Your task to perform on an android device: empty trash in google photos Image 0: 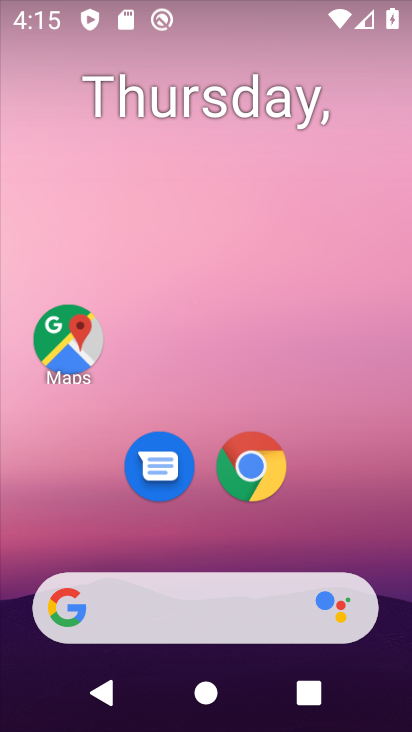
Step 0: drag from (334, 481) to (285, 102)
Your task to perform on an android device: empty trash in google photos Image 1: 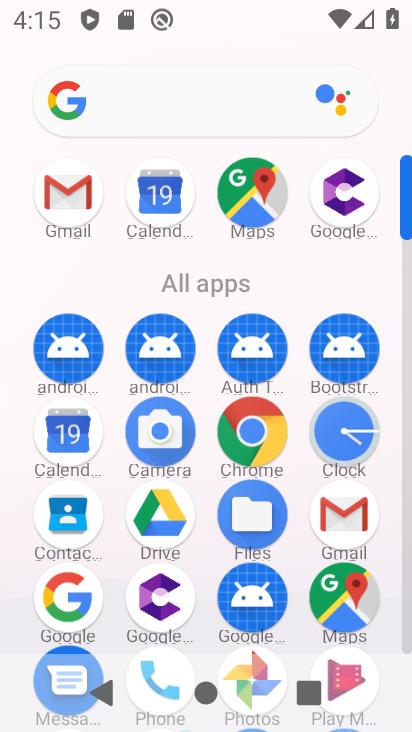
Step 1: drag from (401, 480) to (409, 202)
Your task to perform on an android device: empty trash in google photos Image 2: 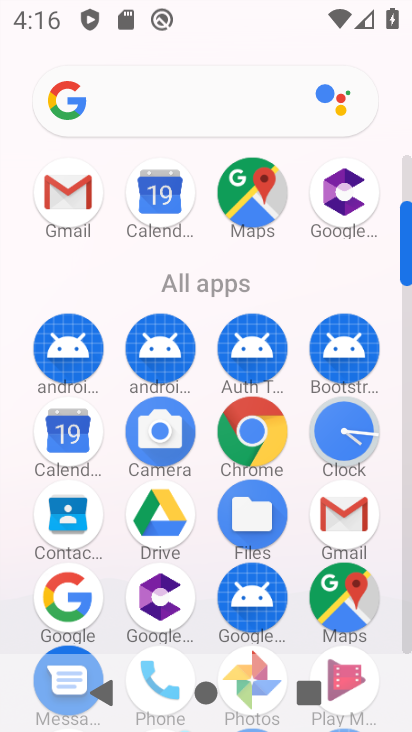
Step 2: drag from (403, 545) to (409, 237)
Your task to perform on an android device: empty trash in google photos Image 3: 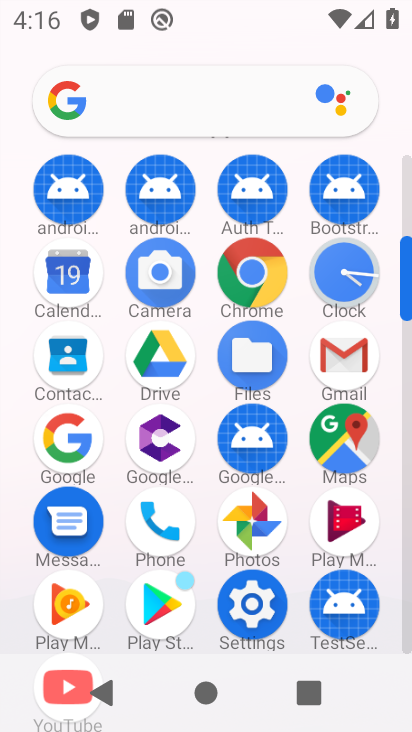
Step 3: click (267, 434)
Your task to perform on an android device: empty trash in google photos Image 4: 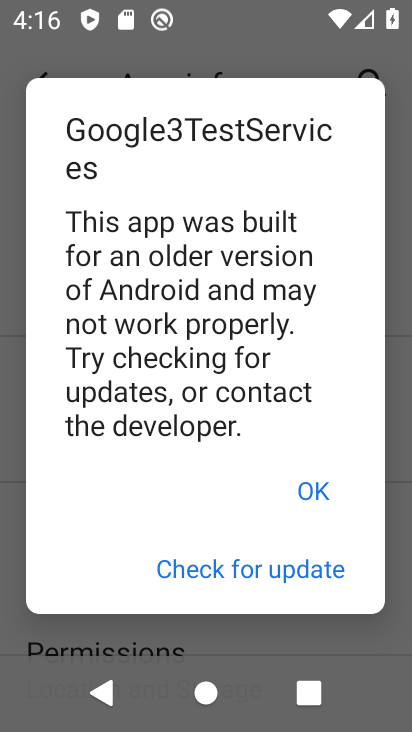
Step 4: press back button
Your task to perform on an android device: empty trash in google photos Image 5: 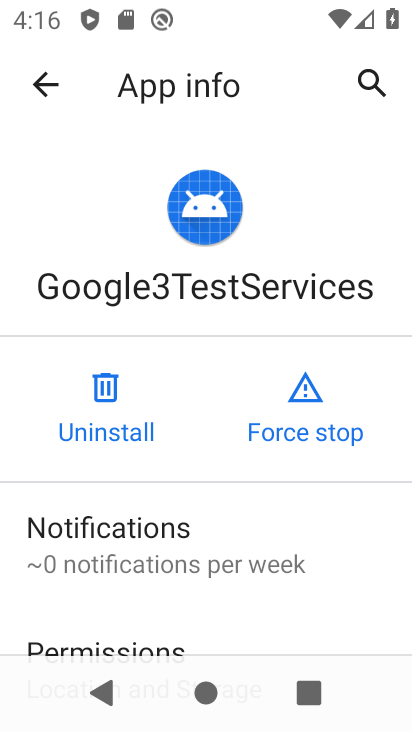
Step 5: drag from (200, 454) to (217, 282)
Your task to perform on an android device: empty trash in google photos Image 6: 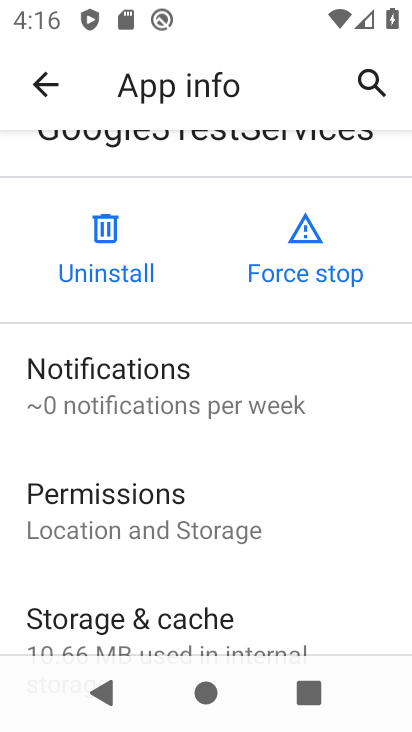
Step 6: drag from (217, 504) to (262, 183)
Your task to perform on an android device: empty trash in google photos Image 7: 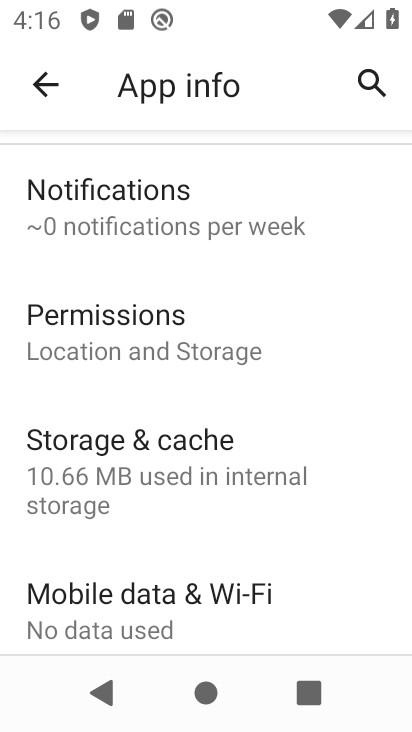
Step 7: click (34, 69)
Your task to perform on an android device: empty trash in google photos Image 8: 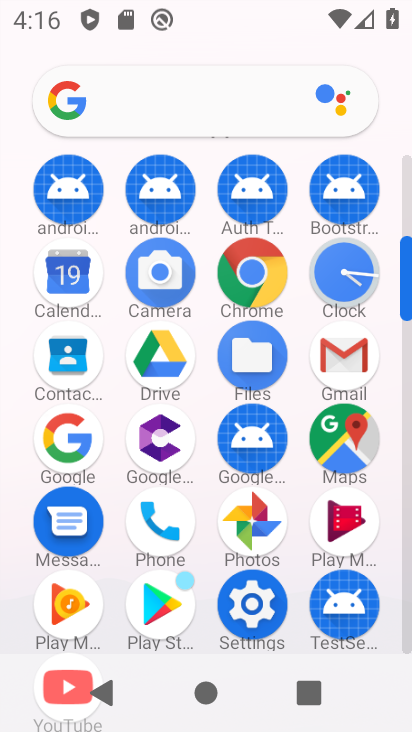
Step 8: click (245, 513)
Your task to perform on an android device: empty trash in google photos Image 9: 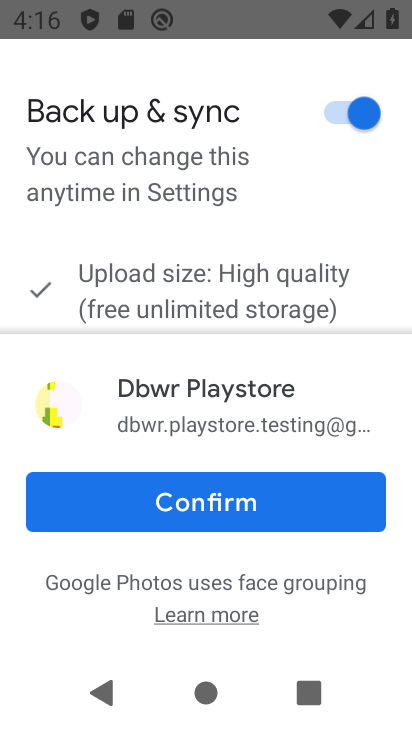
Step 9: click (195, 515)
Your task to perform on an android device: empty trash in google photos Image 10: 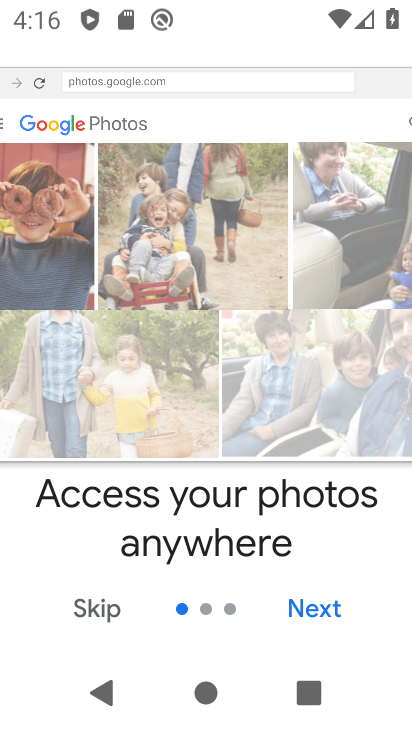
Step 10: click (316, 612)
Your task to perform on an android device: empty trash in google photos Image 11: 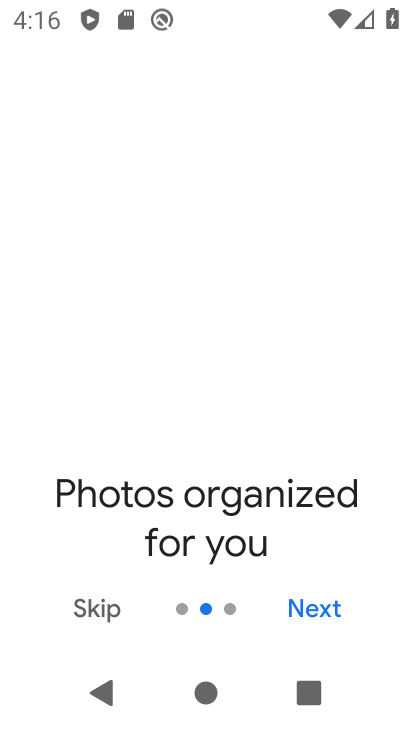
Step 11: click (320, 612)
Your task to perform on an android device: empty trash in google photos Image 12: 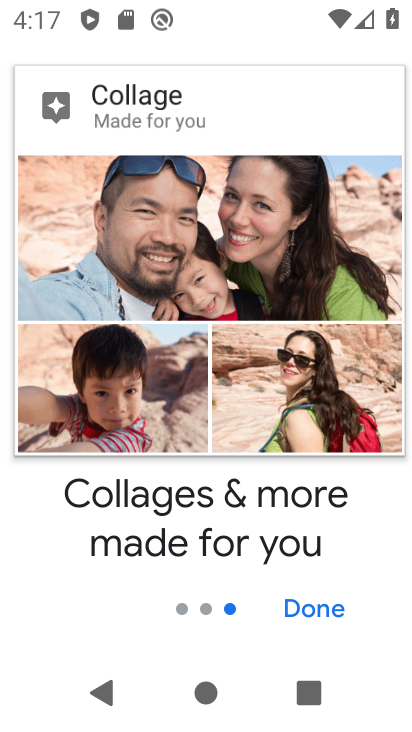
Step 12: click (321, 610)
Your task to perform on an android device: empty trash in google photos Image 13: 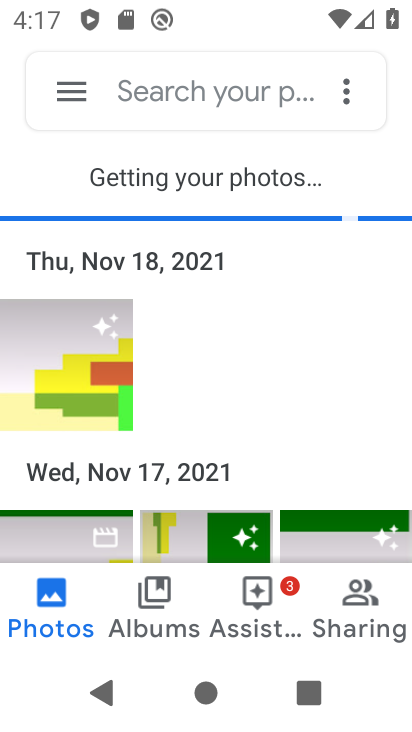
Step 13: click (52, 104)
Your task to perform on an android device: empty trash in google photos Image 14: 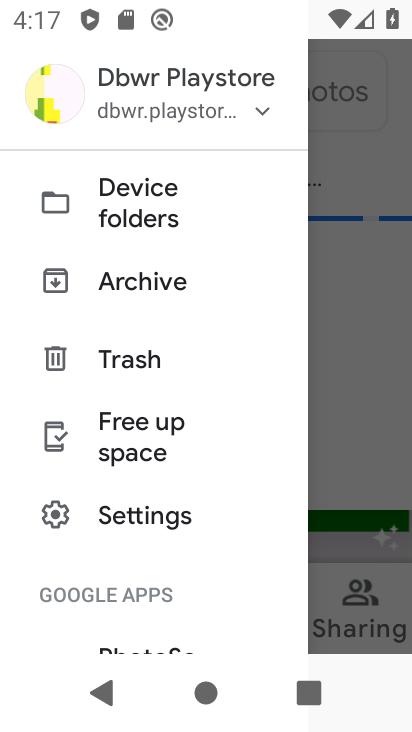
Step 14: click (116, 369)
Your task to perform on an android device: empty trash in google photos Image 15: 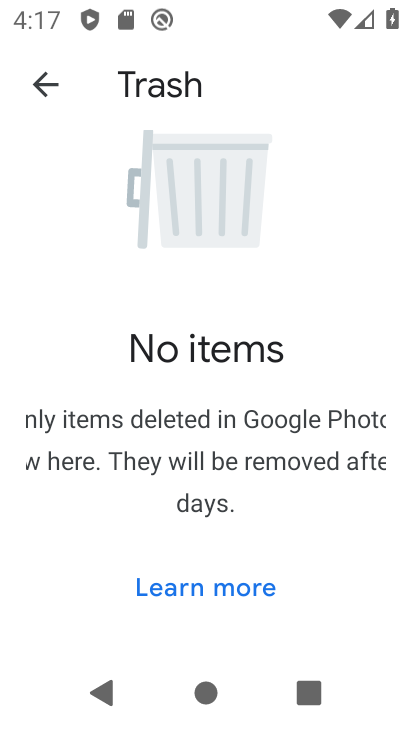
Step 15: task complete